Your task to perform on an android device: delete the emails in spam in the gmail app Image 0: 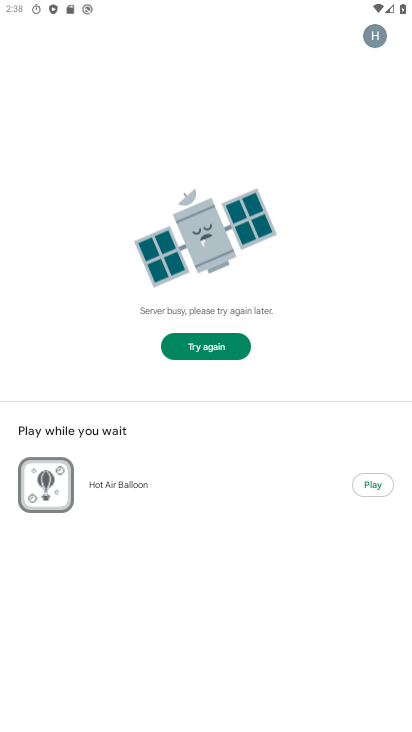
Step 0: press home button
Your task to perform on an android device: delete the emails in spam in the gmail app Image 1: 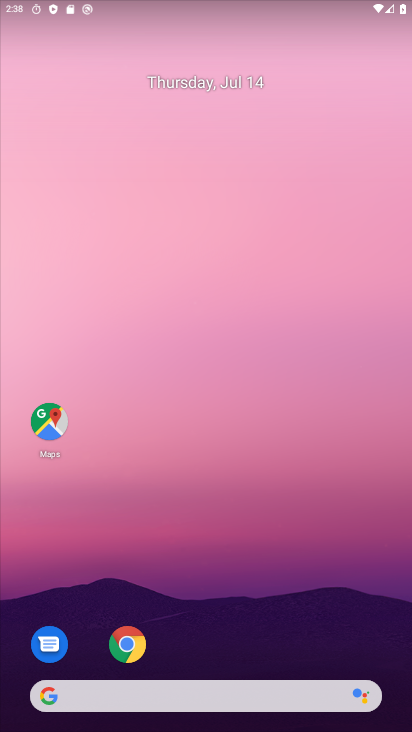
Step 1: drag from (91, 513) to (174, 69)
Your task to perform on an android device: delete the emails in spam in the gmail app Image 2: 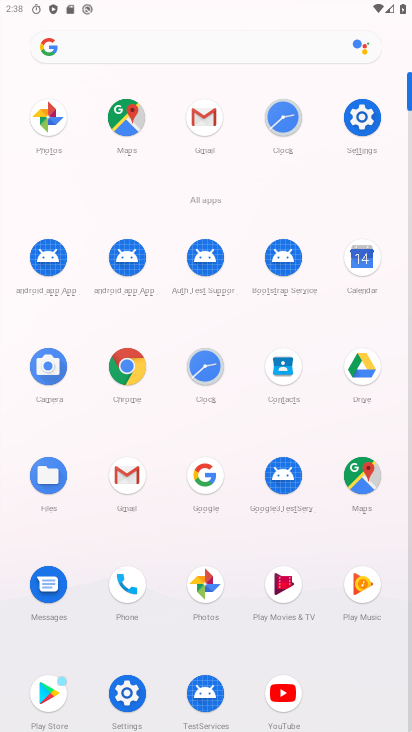
Step 2: click (125, 498)
Your task to perform on an android device: delete the emails in spam in the gmail app Image 3: 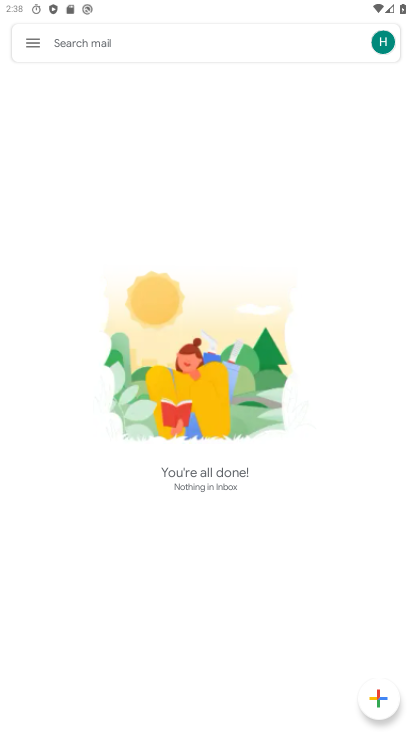
Step 3: click (30, 41)
Your task to perform on an android device: delete the emails in spam in the gmail app Image 4: 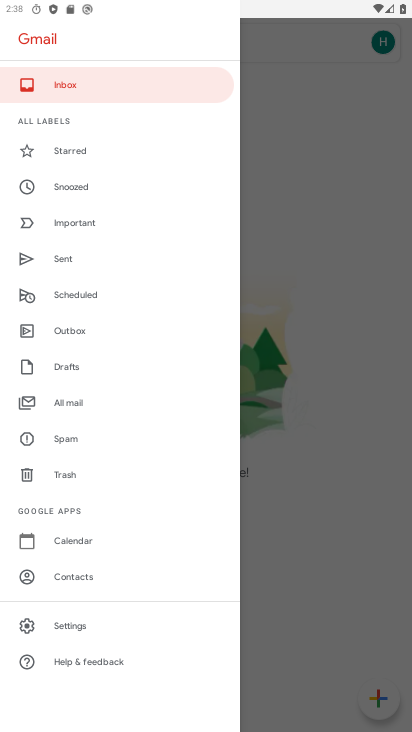
Step 4: click (70, 440)
Your task to perform on an android device: delete the emails in spam in the gmail app Image 5: 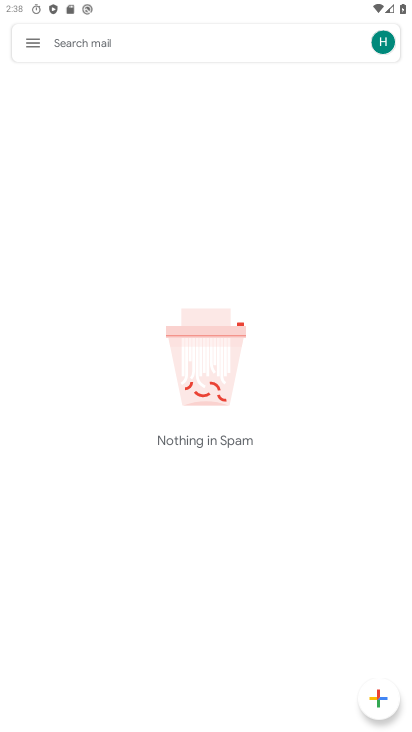
Step 5: task complete